Your task to perform on an android device: Open maps Image 0: 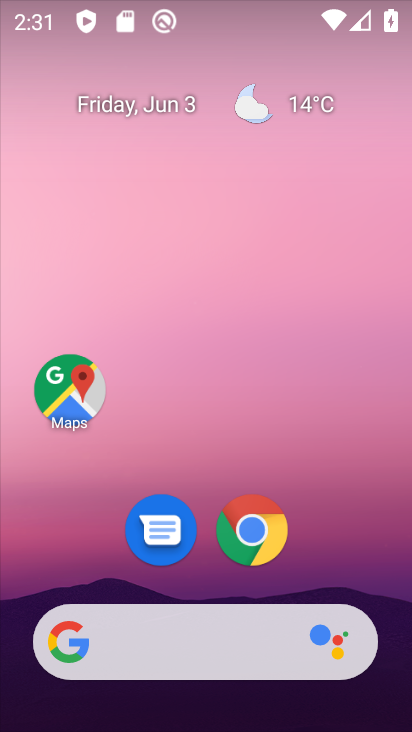
Step 0: click (69, 413)
Your task to perform on an android device: Open maps Image 1: 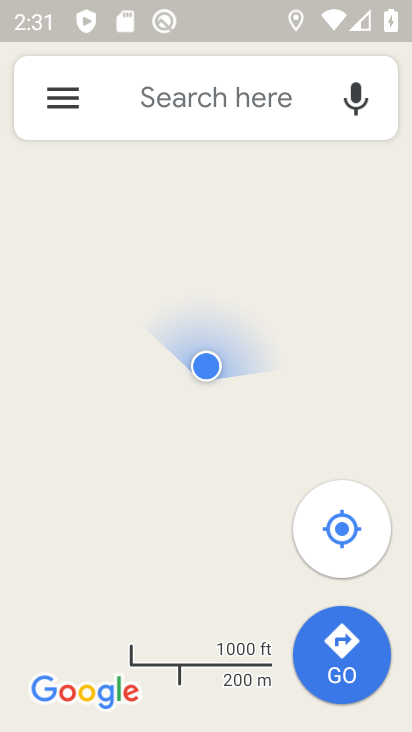
Step 1: task complete